Your task to perform on an android device: toggle data saver in the chrome app Image 0: 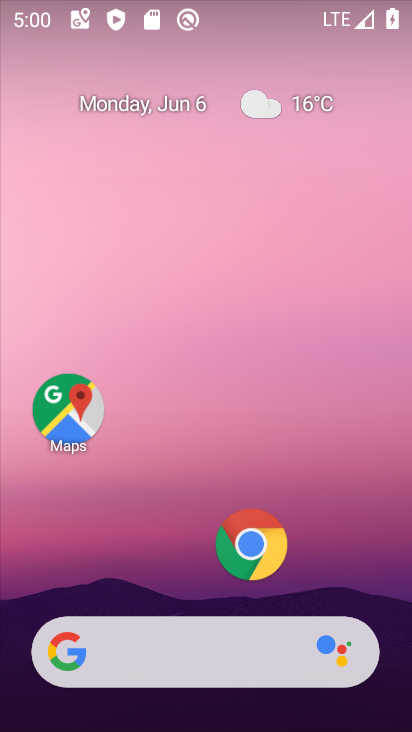
Step 0: click (250, 541)
Your task to perform on an android device: toggle data saver in the chrome app Image 1: 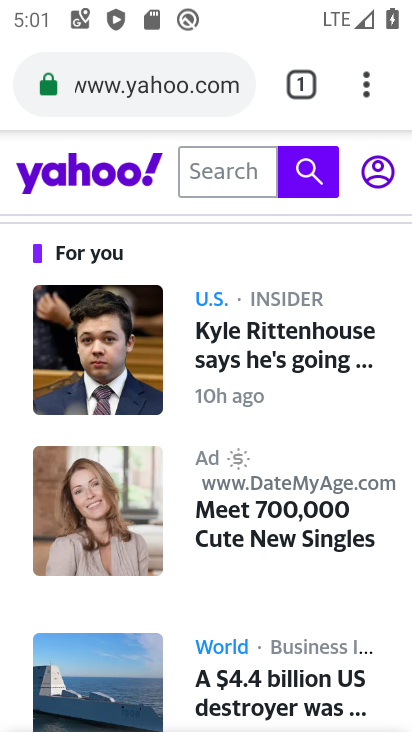
Step 1: click (362, 76)
Your task to perform on an android device: toggle data saver in the chrome app Image 2: 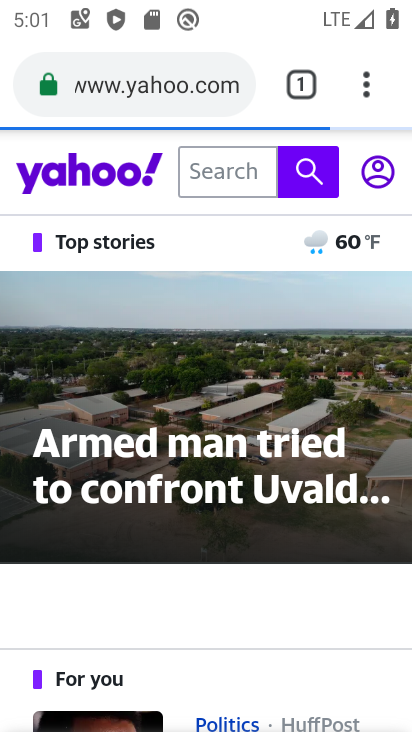
Step 2: click (374, 79)
Your task to perform on an android device: toggle data saver in the chrome app Image 3: 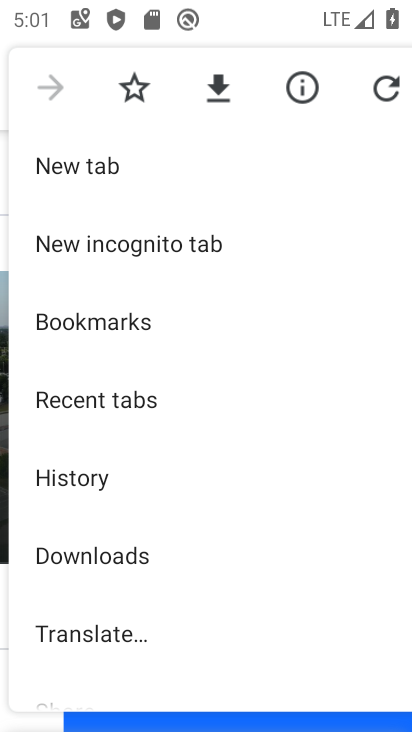
Step 3: drag from (179, 611) to (185, 94)
Your task to perform on an android device: toggle data saver in the chrome app Image 4: 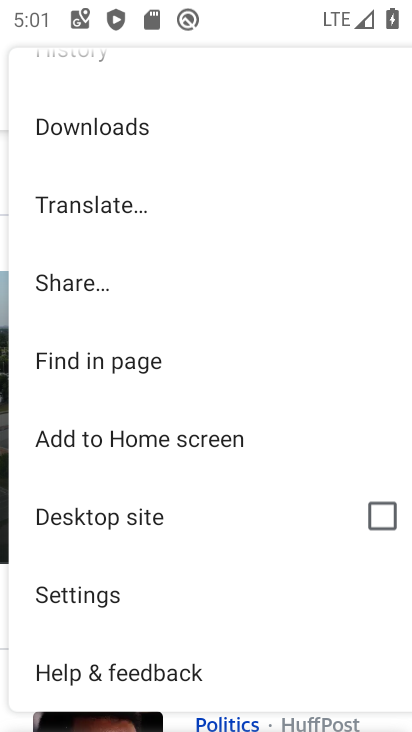
Step 4: click (137, 583)
Your task to perform on an android device: toggle data saver in the chrome app Image 5: 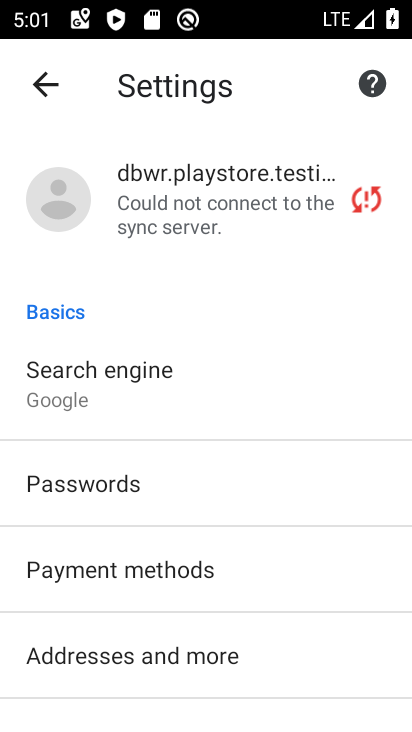
Step 5: drag from (271, 692) to (265, 175)
Your task to perform on an android device: toggle data saver in the chrome app Image 6: 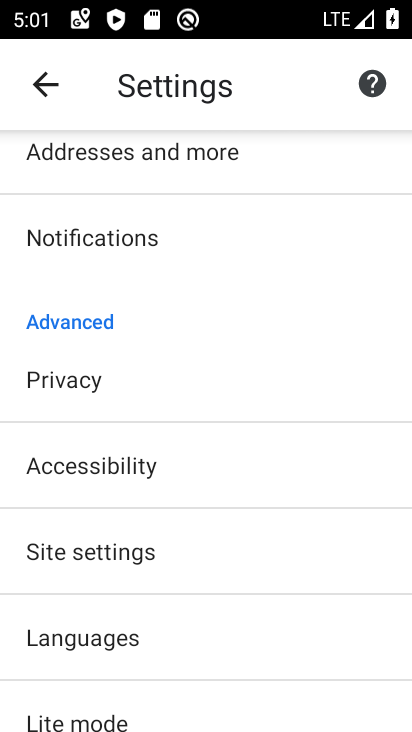
Step 6: click (160, 705)
Your task to perform on an android device: toggle data saver in the chrome app Image 7: 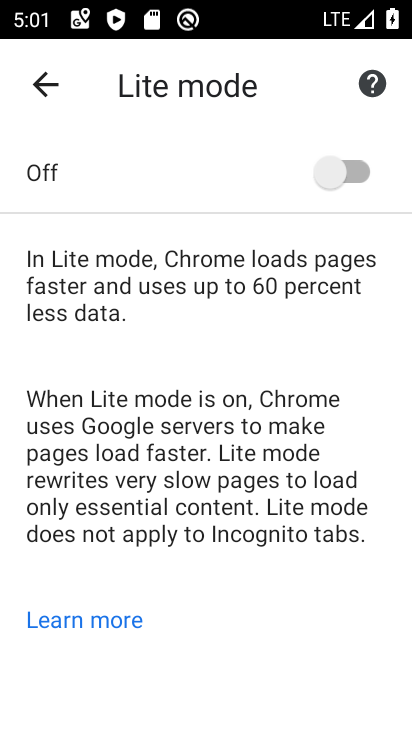
Step 7: click (345, 160)
Your task to perform on an android device: toggle data saver in the chrome app Image 8: 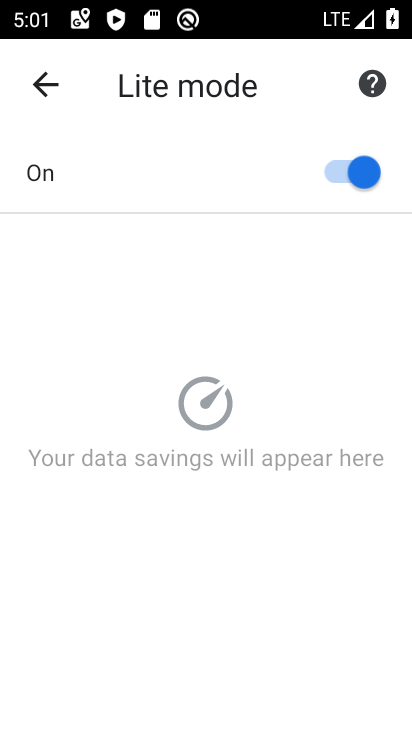
Step 8: task complete